Your task to perform on an android device: check android version Image 0: 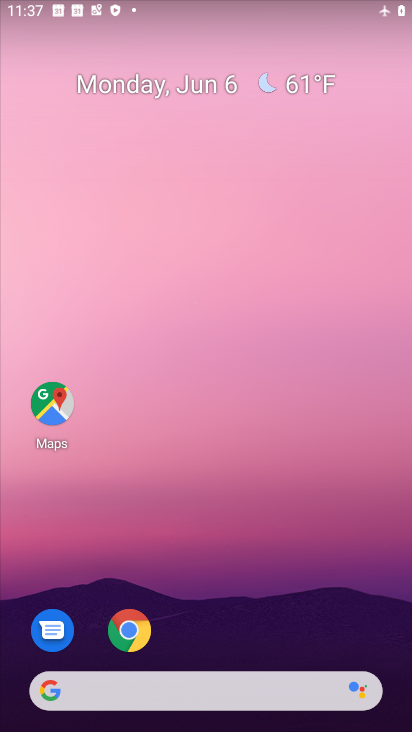
Step 0: drag from (314, 623) to (330, 167)
Your task to perform on an android device: check android version Image 1: 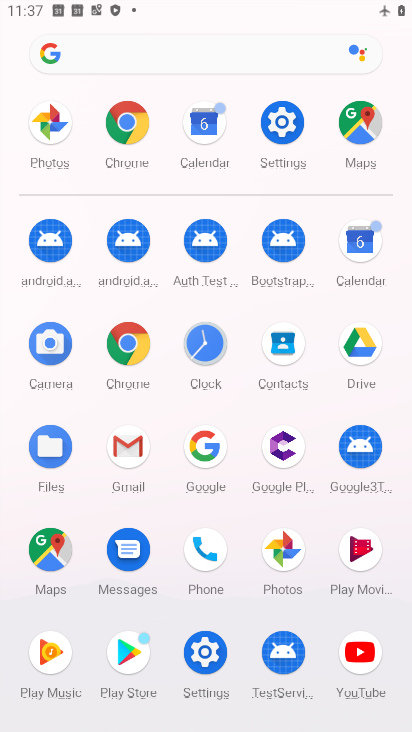
Step 1: click (218, 665)
Your task to perform on an android device: check android version Image 2: 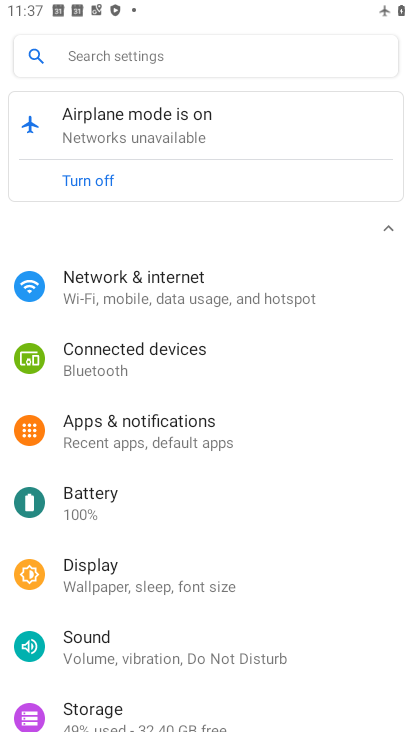
Step 2: drag from (246, 689) to (261, 358)
Your task to perform on an android device: check android version Image 3: 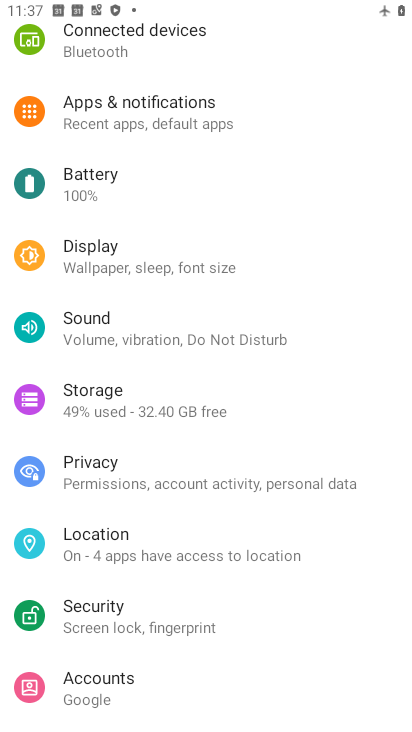
Step 3: drag from (266, 680) to (311, 239)
Your task to perform on an android device: check android version Image 4: 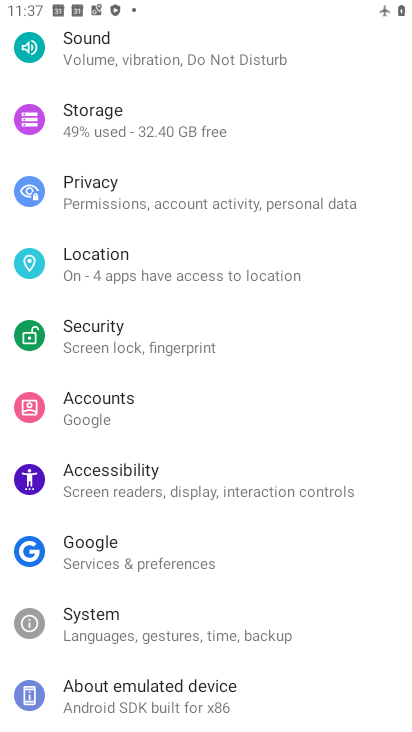
Step 4: click (242, 686)
Your task to perform on an android device: check android version Image 5: 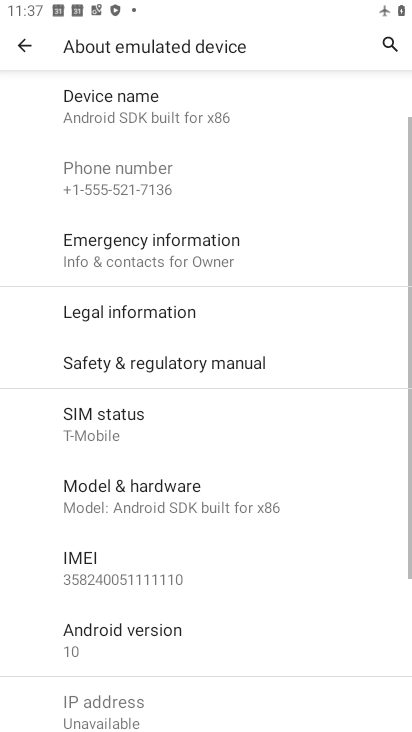
Step 5: click (168, 615)
Your task to perform on an android device: check android version Image 6: 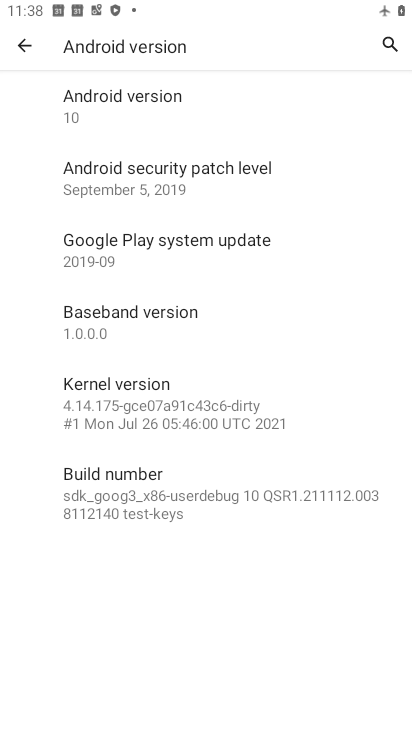
Step 6: task complete